Your task to perform on an android device: Go to battery settings Image 0: 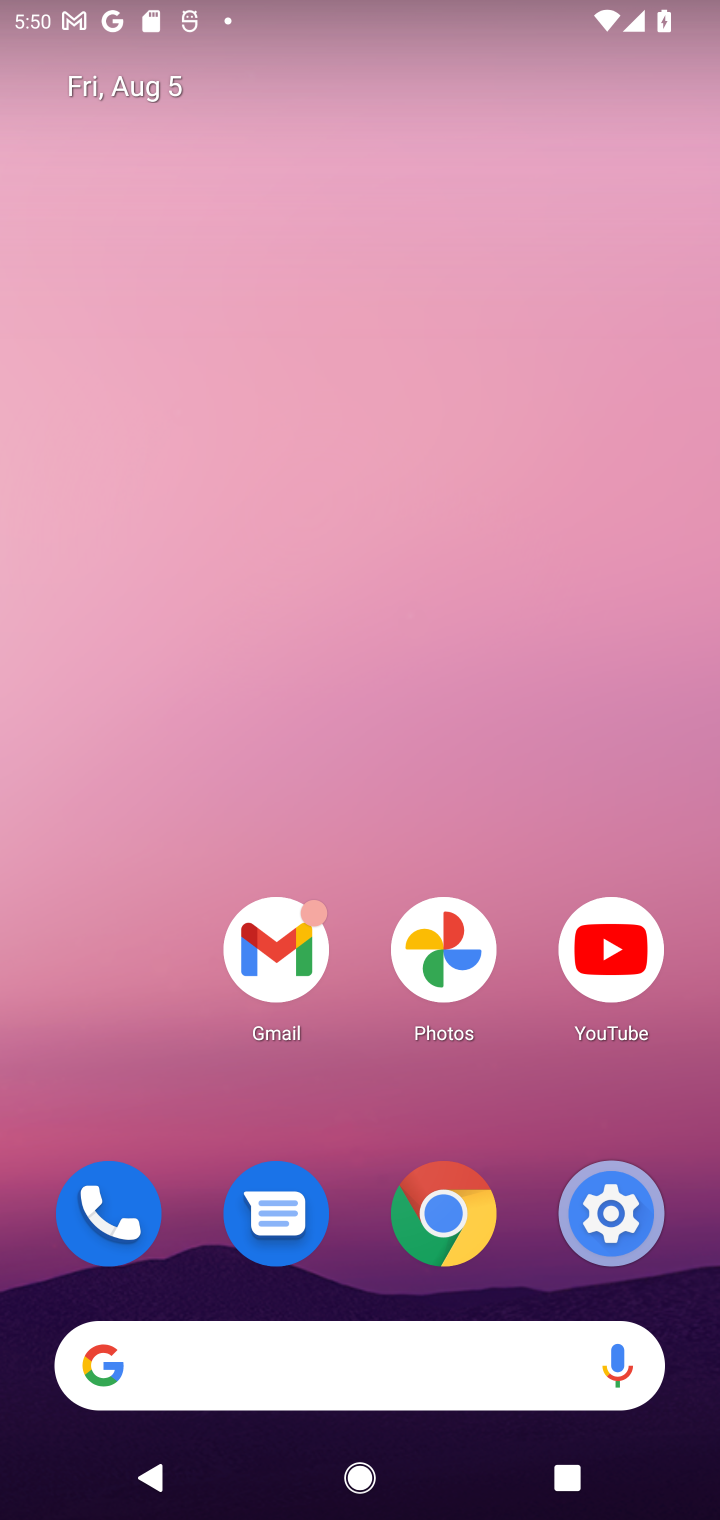
Step 0: click (595, 1211)
Your task to perform on an android device: Go to battery settings Image 1: 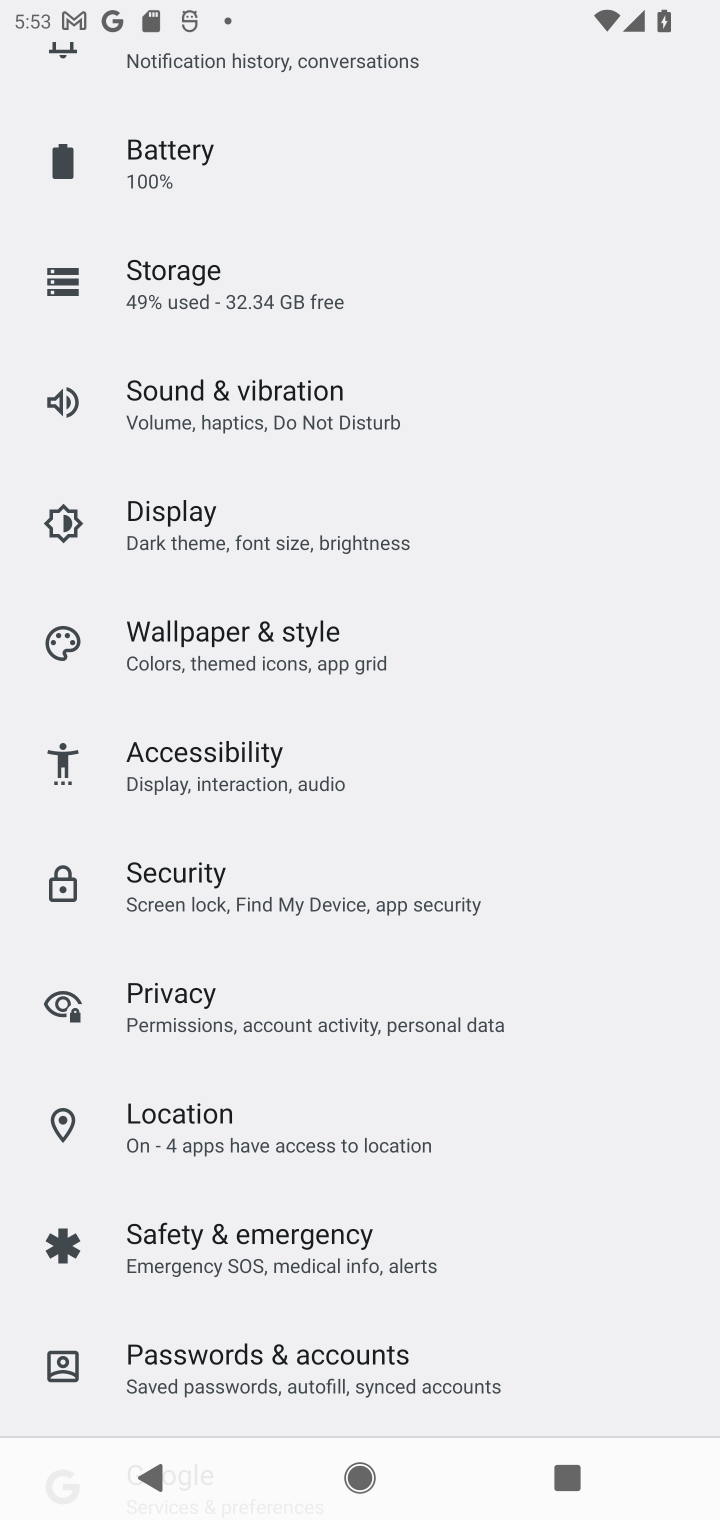
Step 1: click (302, 186)
Your task to perform on an android device: Go to battery settings Image 2: 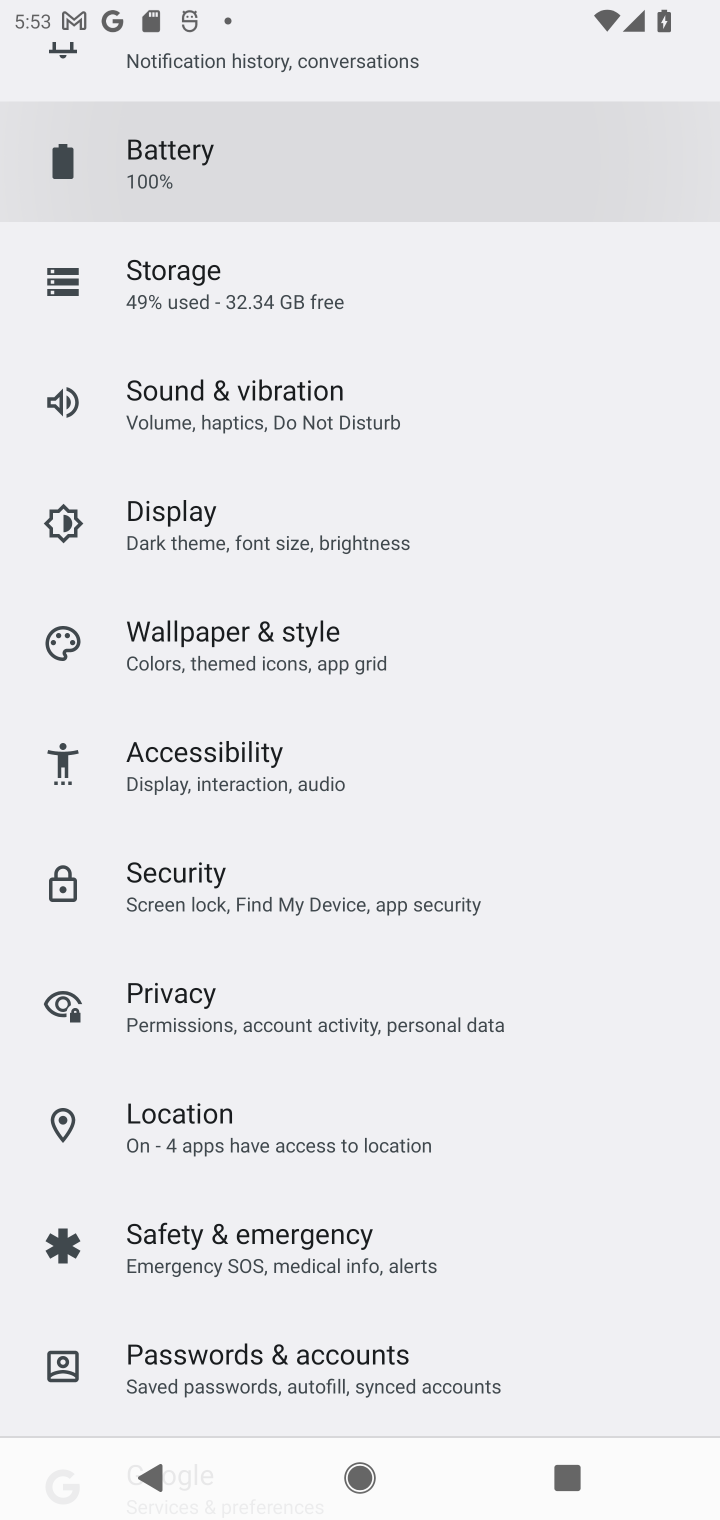
Step 2: task complete